Your task to perform on an android device: turn off location history Image 0: 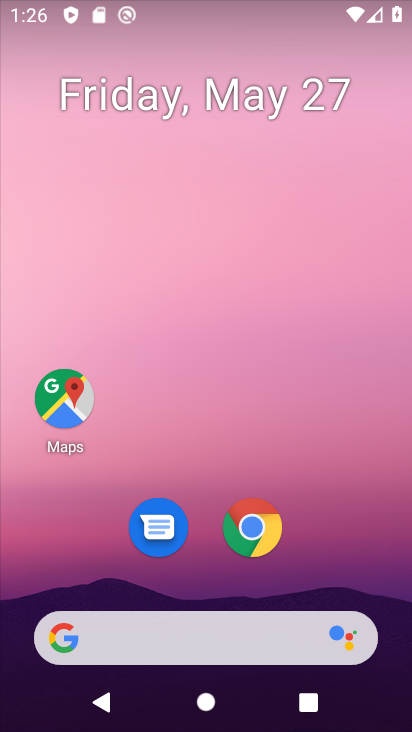
Step 0: drag from (233, 517) to (229, 96)
Your task to perform on an android device: turn off location history Image 1: 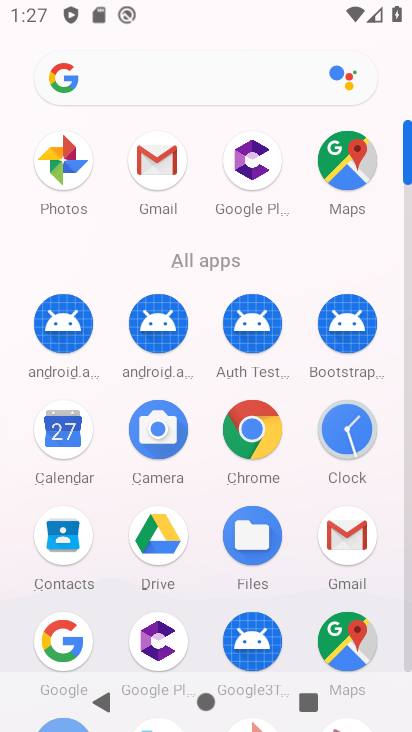
Step 1: drag from (205, 601) to (310, 182)
Your task to perform on an android device: turn off location history Image 2: 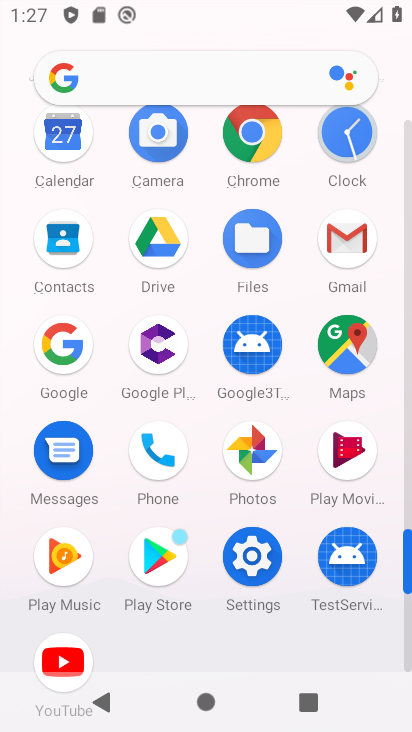
Step 2: click (253, 558)
Your task to perform on an android device: turn off location history Image 3: 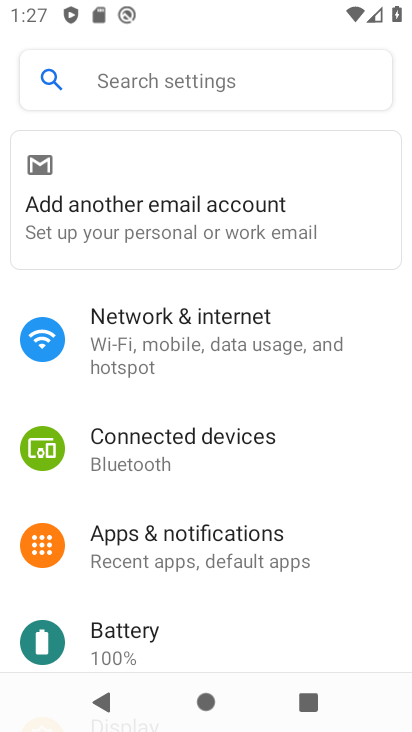
Step 3: drag from (188, 591) to (211, 342)
Your task to perform on an android device: turn off location history Image 4: 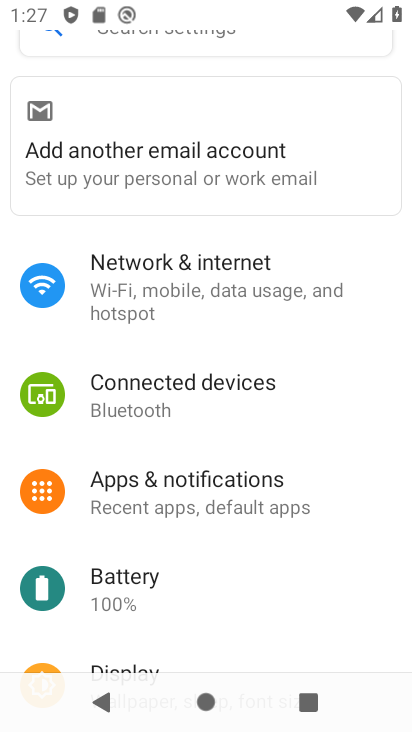
Step 4: drag from (196, 521) to (250, 257)
Your task to perform on an android device: turn off location history Image 5: 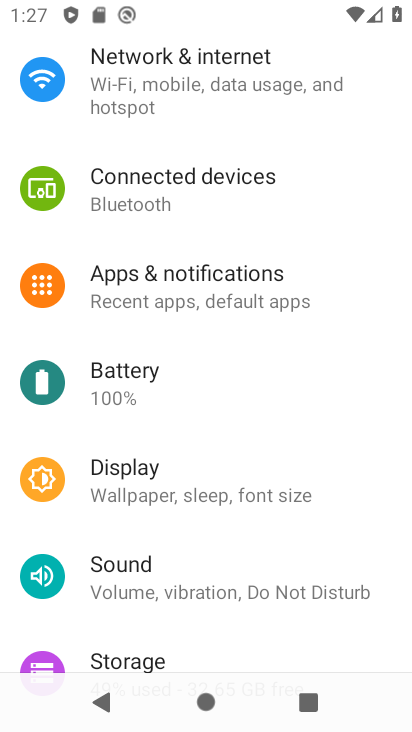
Step 5: drag from (203, 645) to (253, 281)
Your task to perform on an android device: turn off location history Image 6: 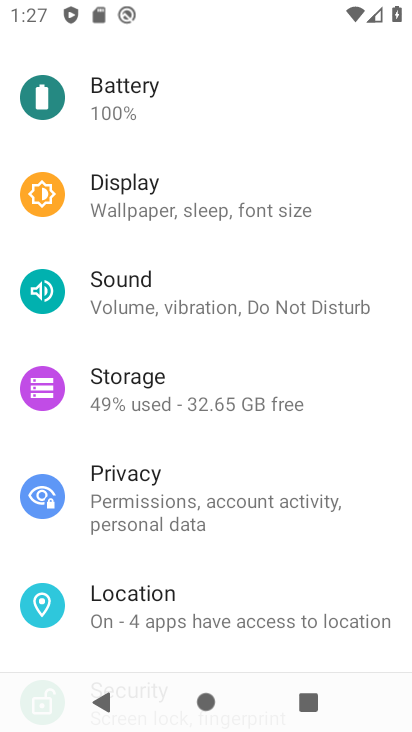
Step 6: click (156, 607)
Your task to perform on an android device: turn off location history Image 7: 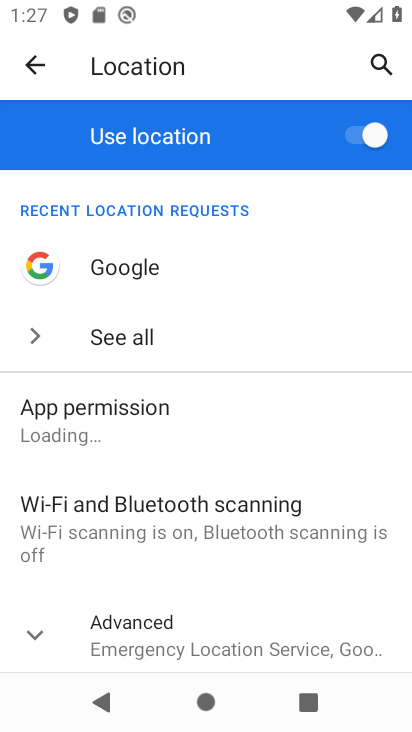
Step 7: click (359, 137)
Your task to perform on an android device: turn off location history Image 8: 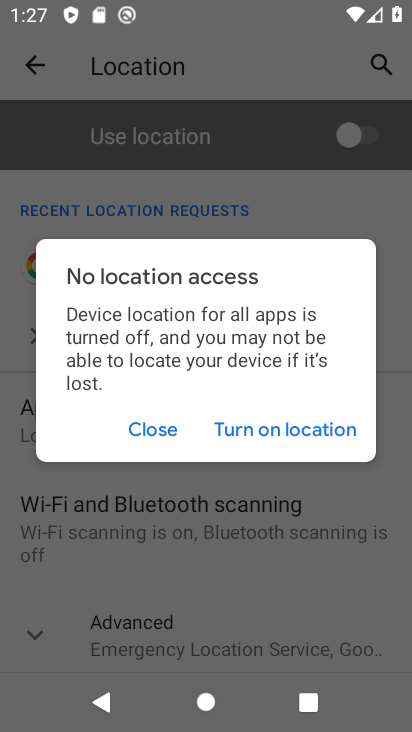
Step 8: task complete